Your task to perform on an android device: Go to Yahoo.com Image 0: 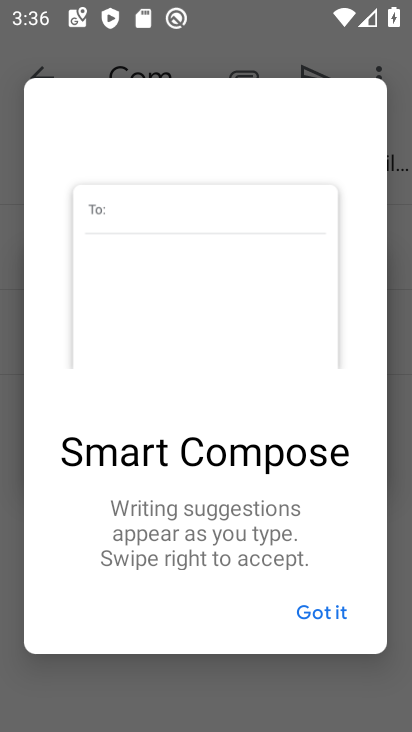
Step 0: press home button
Your task to perform on an android device: Go to Yahoo.com Image 1: 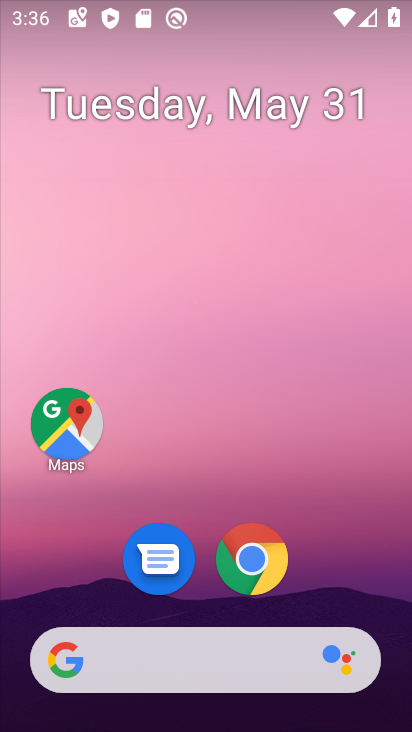
Step 1: click (253, 559)
Your task to perform on an android device: Go to Yahoo.com Image 2: 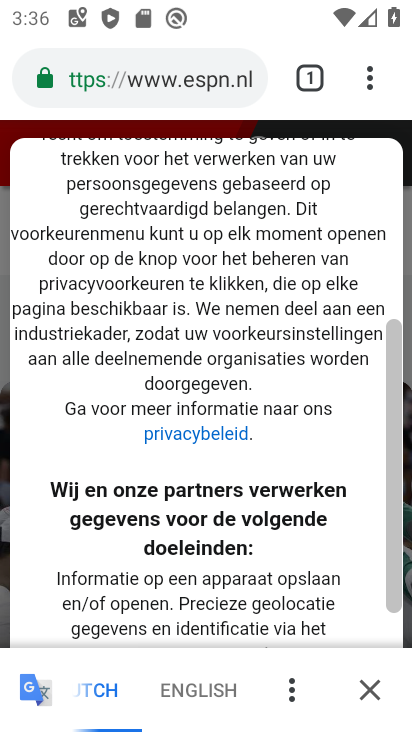
Step 2: click (371, 85)
Your task to perform on an android device: Go to Yahoo.com Image 3: 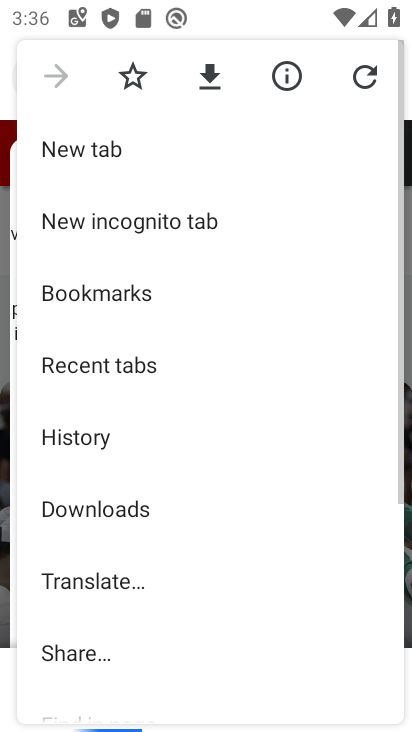
Step 3: click (110, 146)
Your task to perform on an android device: Go to Yahoo.com Image 4: 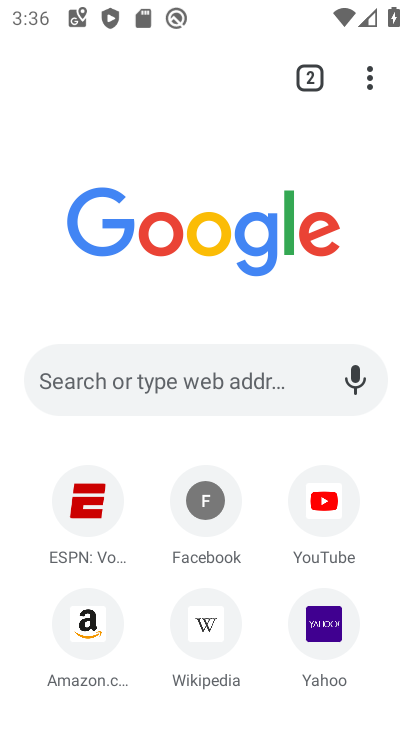
Step 4: click (334, 625)
Your task to perform on an android device: Go to Yahoo.com Image 5: 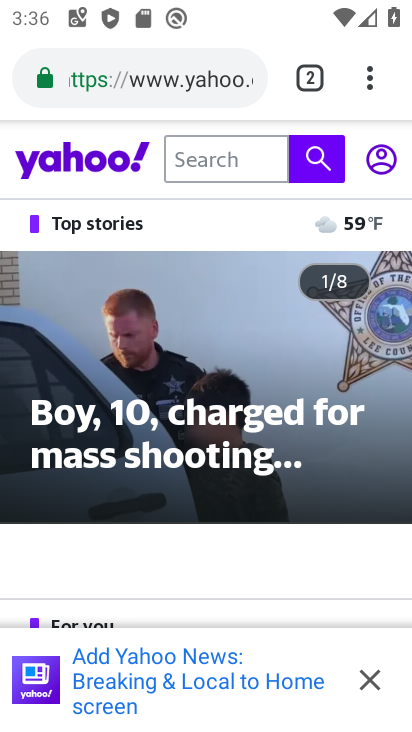
Step 5: task complete